Your task to perform on an android device: uninstall "Cash App" Image 0: 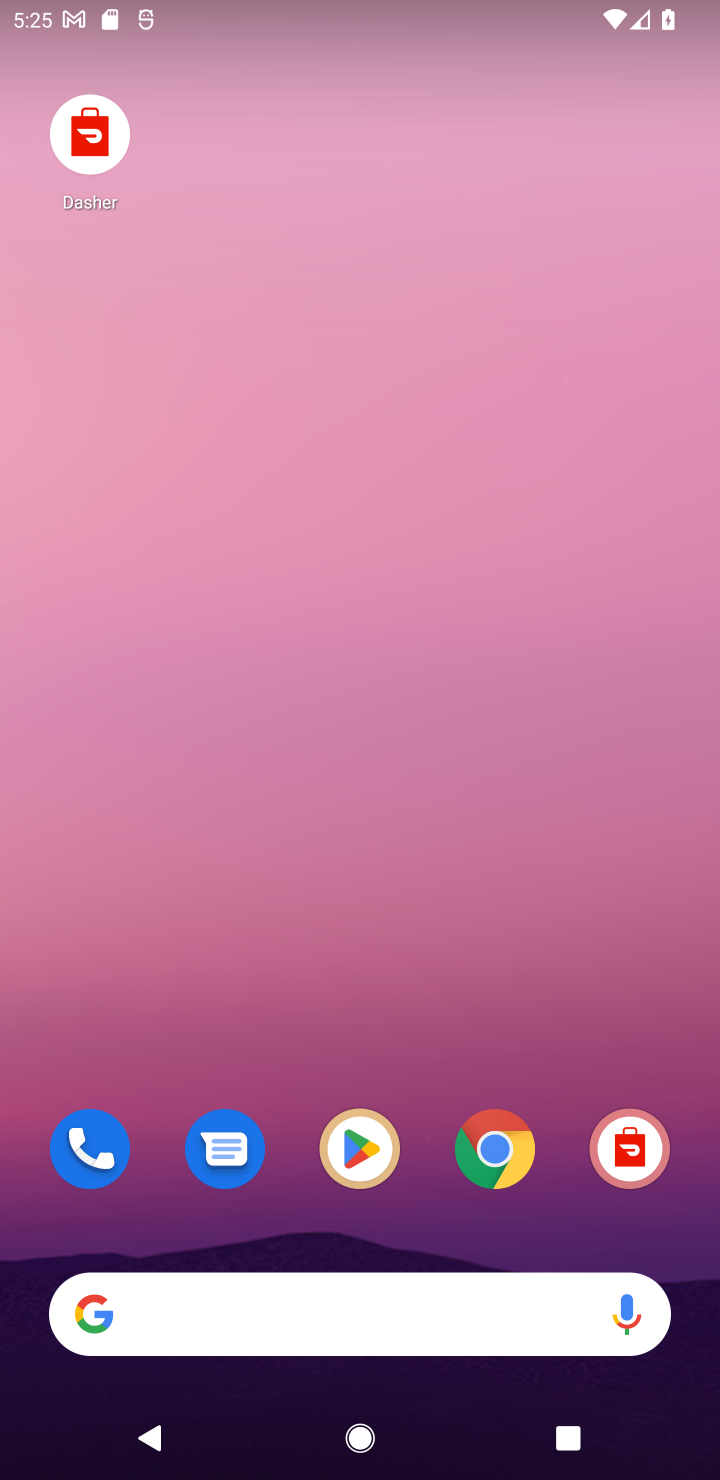
Step 0: press home button
Your task to perform on an android device: uninstall "Cash App" Image 1: 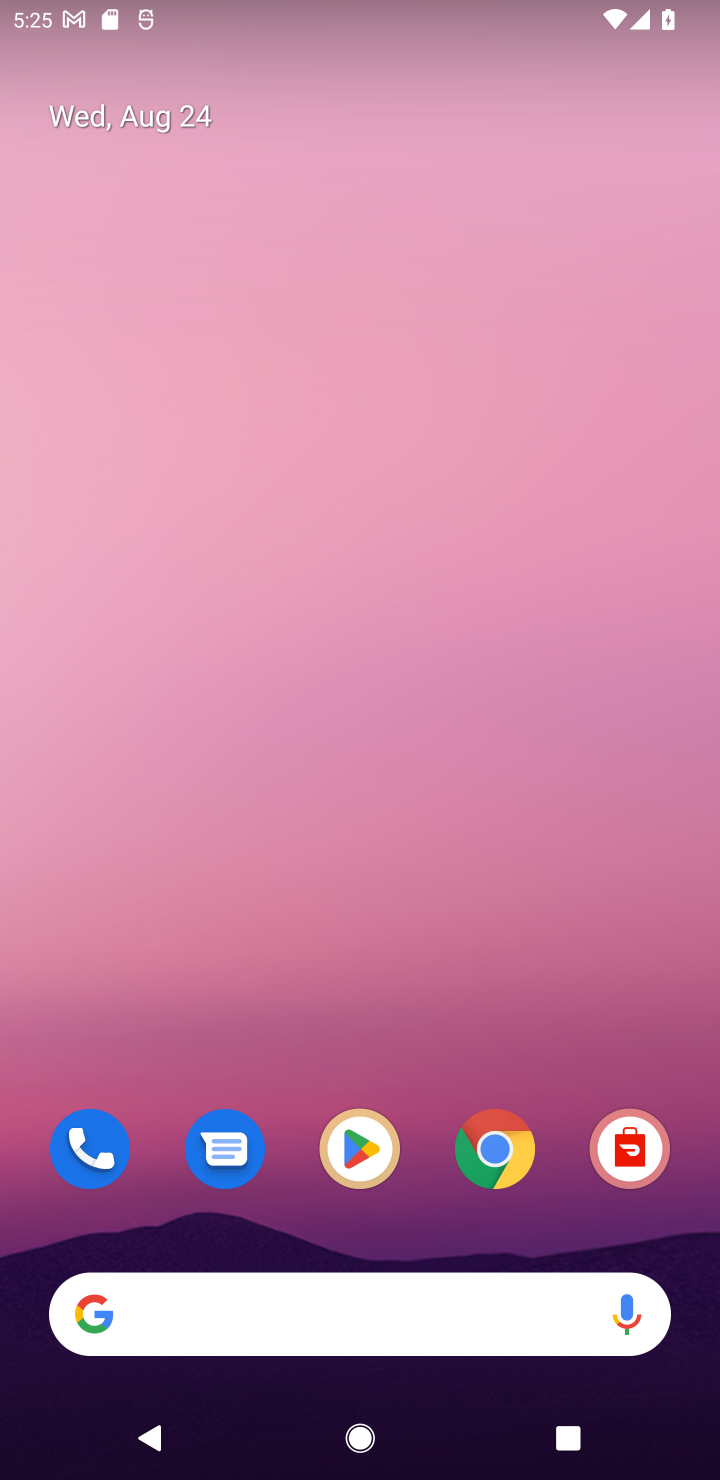
Step 1: click (354, 1147)
Your task to perform on an android device: uninstall "Cash App" Image 2: 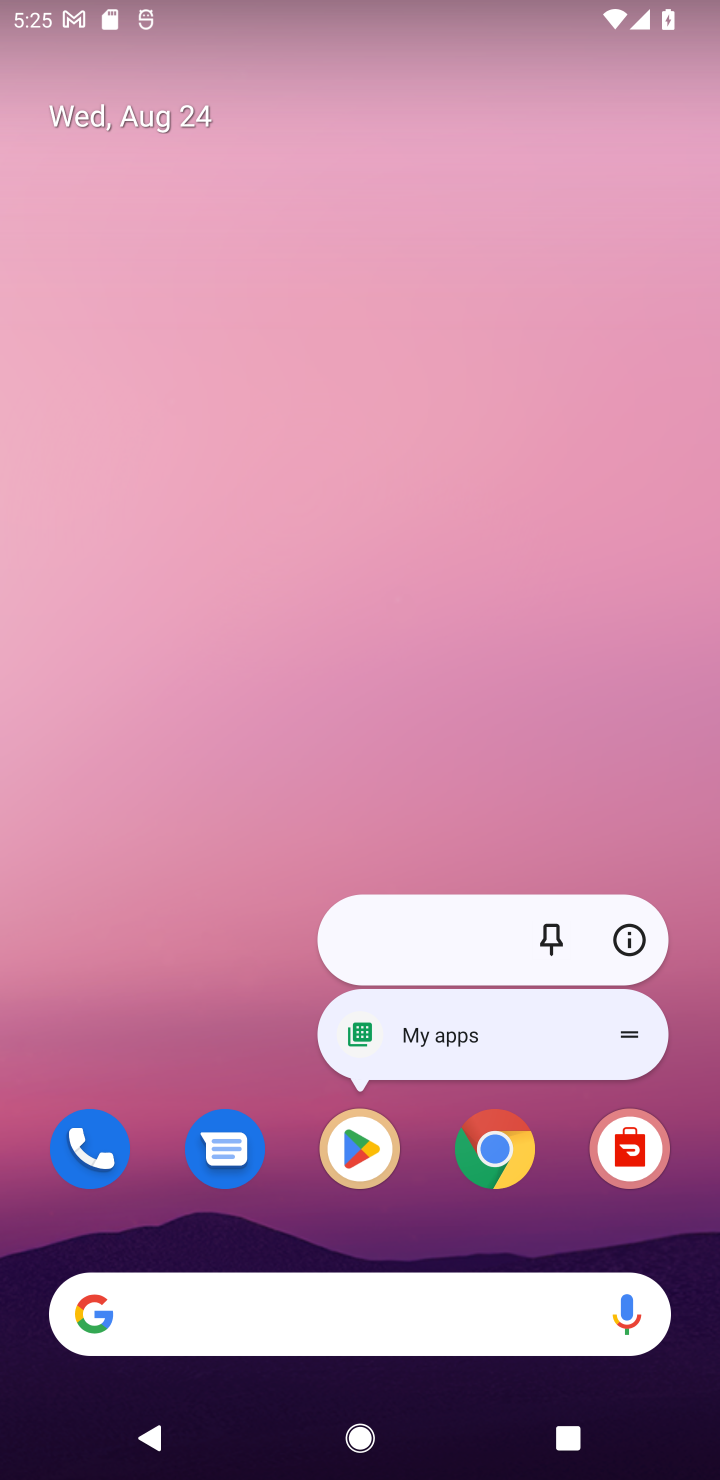
Step 2: click (355, 1152)
Your task to perform on an android device: uninstall "Cash App" Image 3: 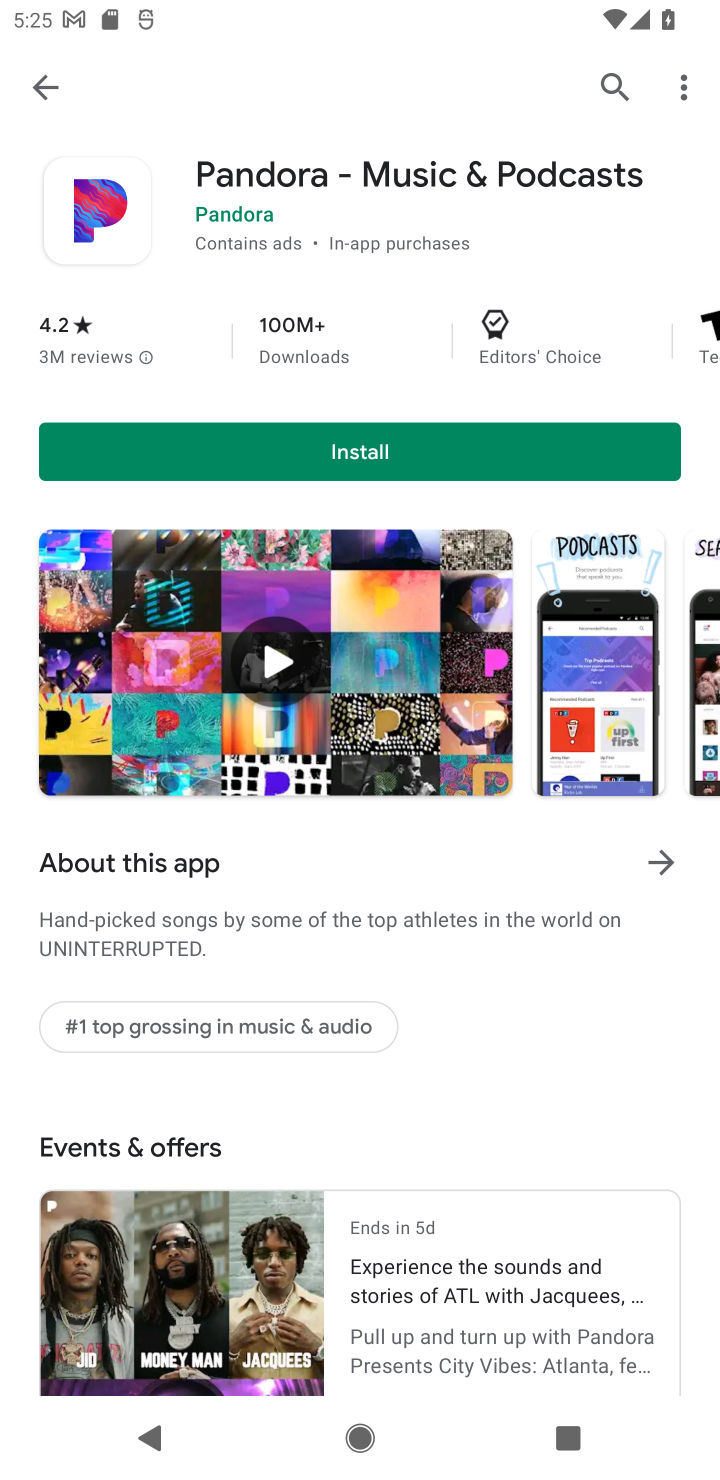
Step 3: click (613, 82)
Your task to perform on an android device: uninstall "Cash App" Image 4: 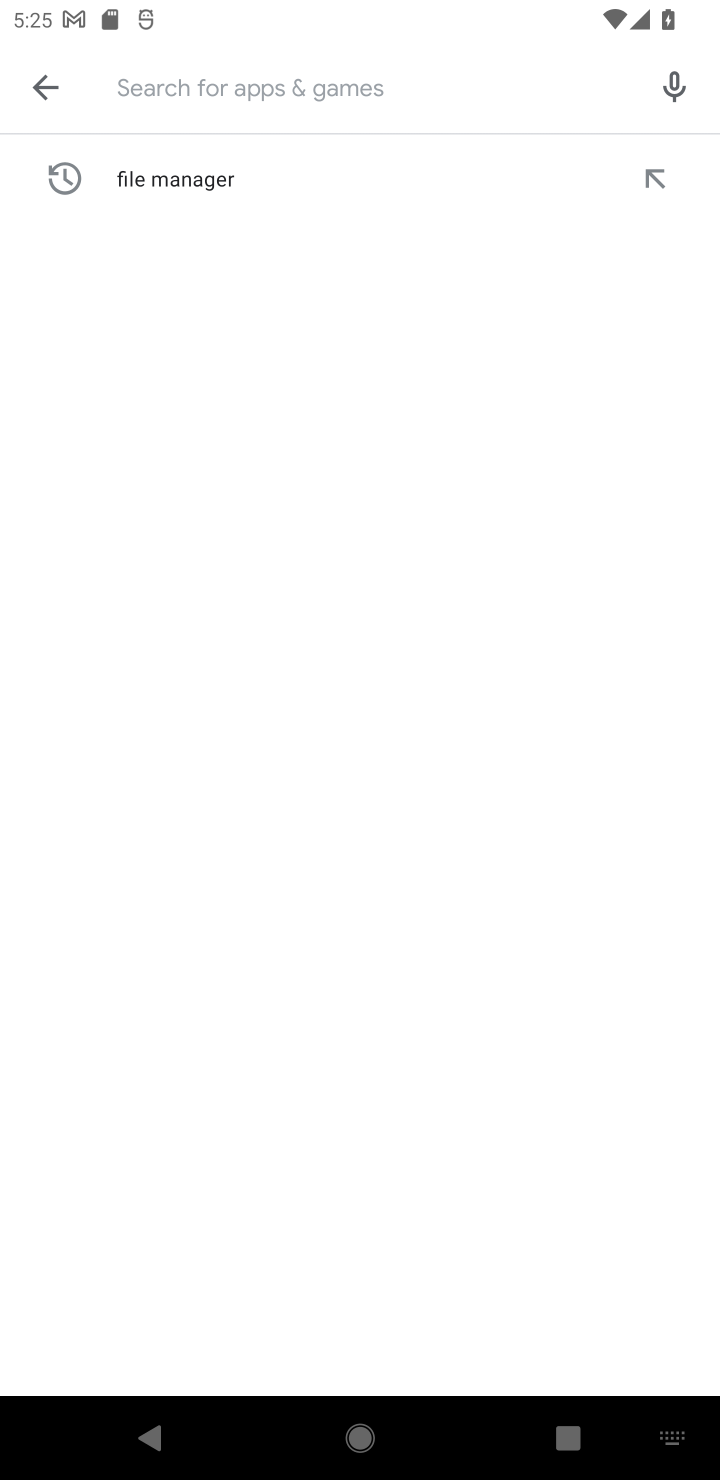
Step 4: type "Cash App"
Your task to perform on an android device: uninstall "Cash App" Image 5: 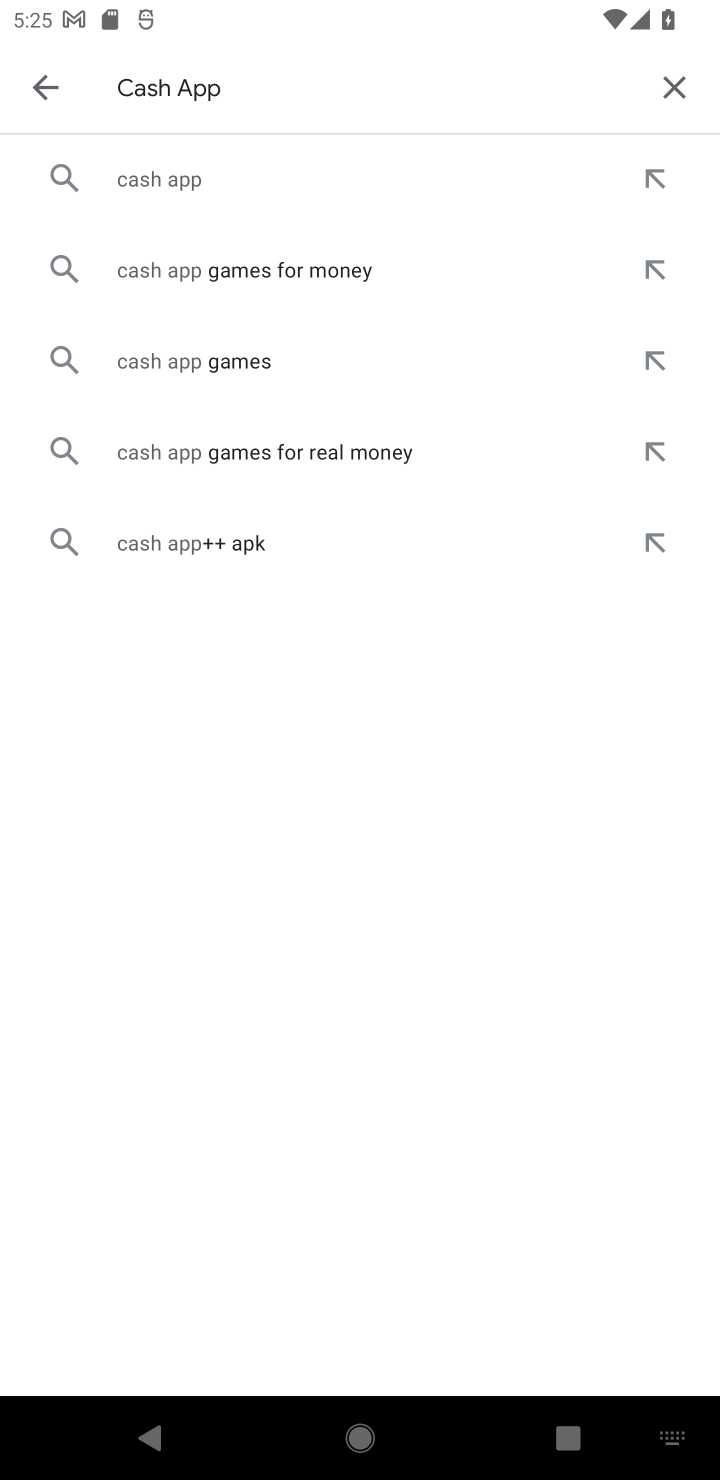
Step 5: click (126, 174)
Your task to perform on an android device: uninstall "Cash App" Image 6: 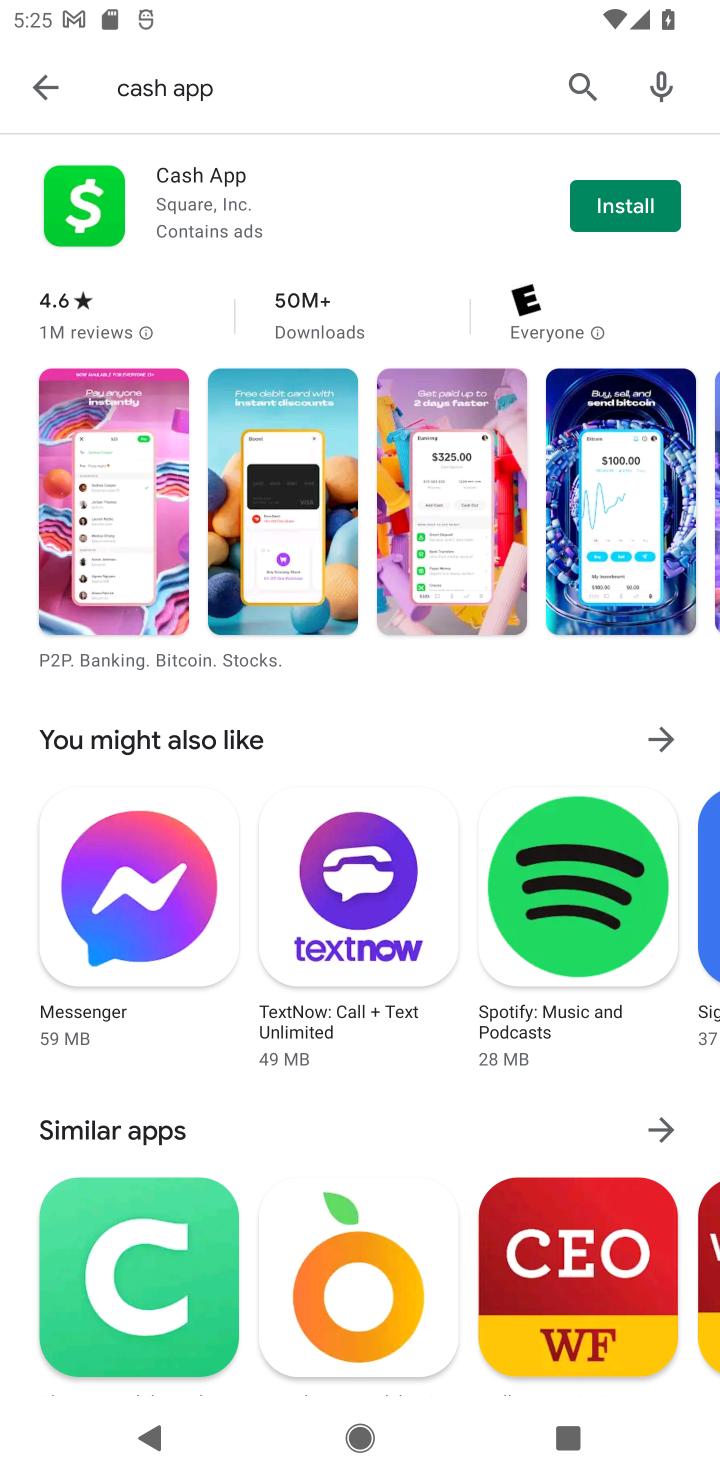
Step 6: task complete